Your task to perform on an android device: check the backup settings in the google photos Image 0: 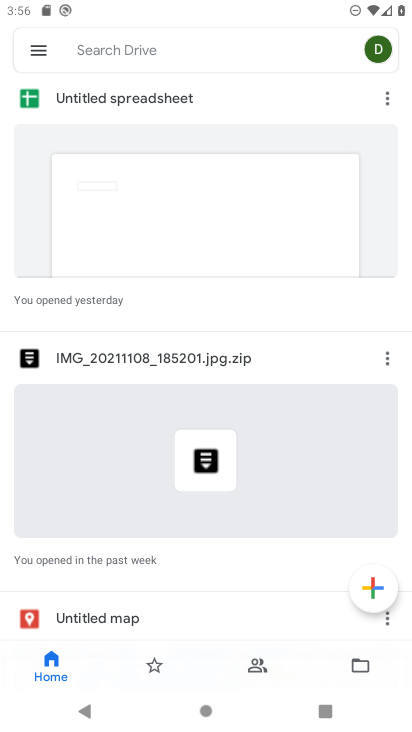
Step 0: press home button
Your task to perform on an android device: check the backup settings in the google photos Image 1: 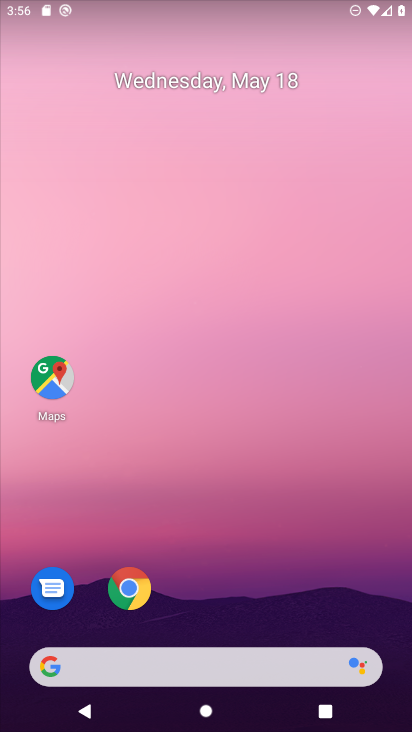
Step 1: drag from (290, 580) to (286, 20)
Your task to perform on an android device: check the backup settings in the google photos Image 2: 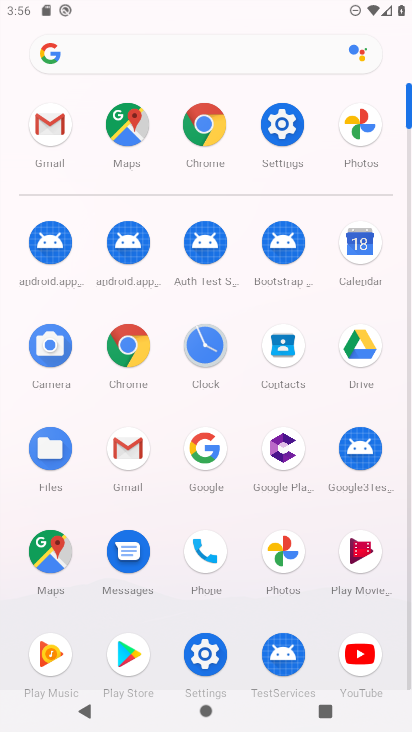
Step 2: click (281, 560)
Your task to perform on an android device: check the backup settings in the google photos Image 3: 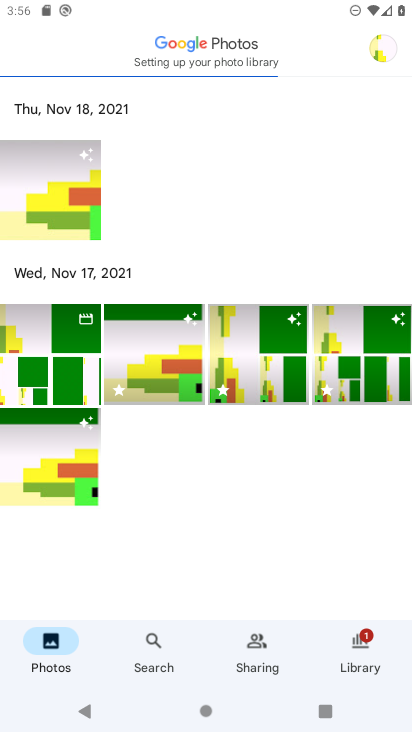
Step 3: click (397, 53)
Your task to perform on an android device: check the backup settings in the google photos Image 4: 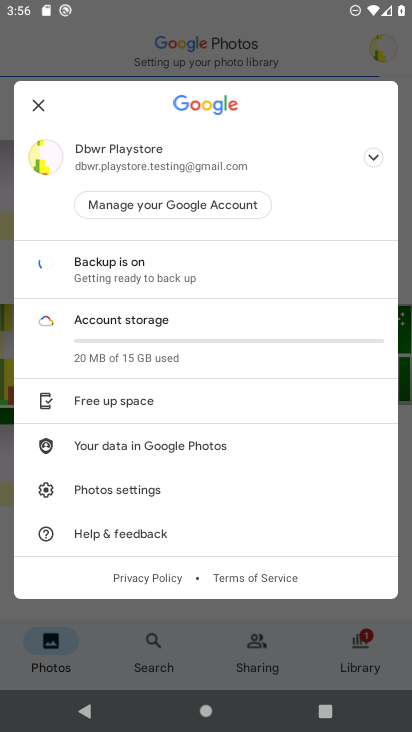
Step 4: click (122, 504)
Your task to perform on an android device: check the backup settings in the google photos Image 5: 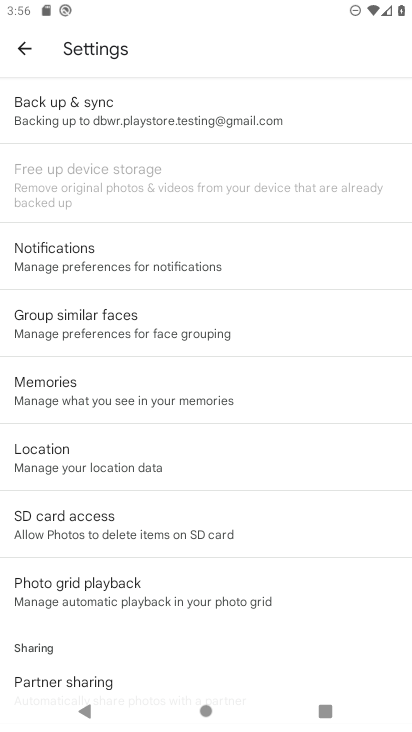
Step 5: click (210, 98)
Your task to perform on an android device: check the backup settings in the google photos Image 6: 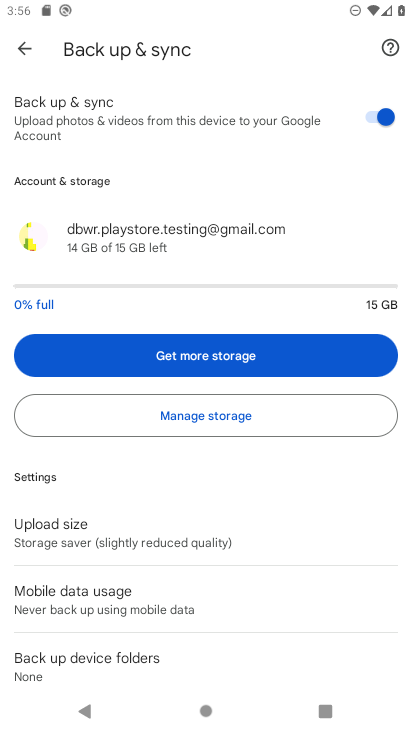
Step 6: task complete